Your task to perform on an android device: Clear the shopping cart on bestbuy. Search for macbook on bestbuy, select the first entry, add it to the cart, then select checkout. Image 0: 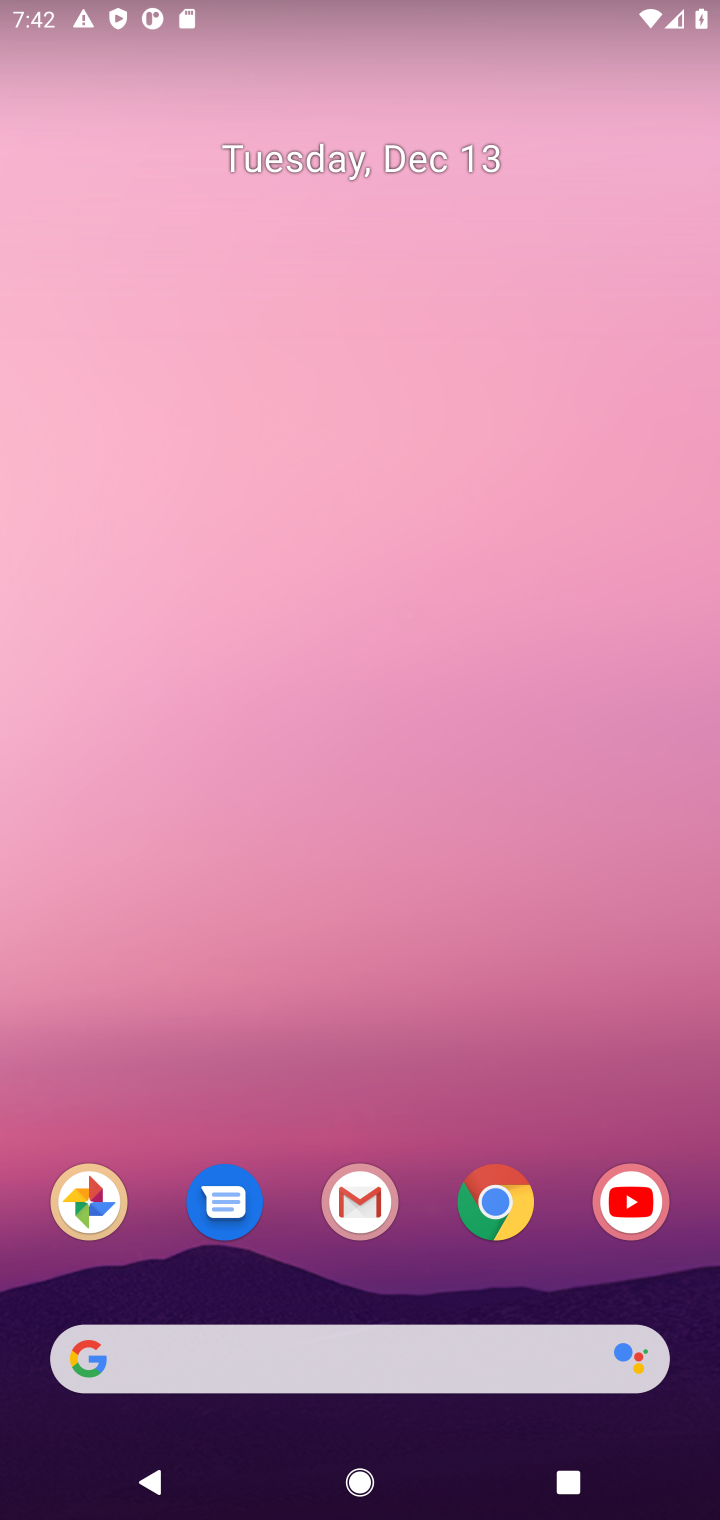
Step 0: click (502, 1227)
Your task to perform on an android device: Clear the shopping cart on bestbuy. Search for macbook on bestbuy, select the first entry, add it to the cart, then select checkout. Image 1: 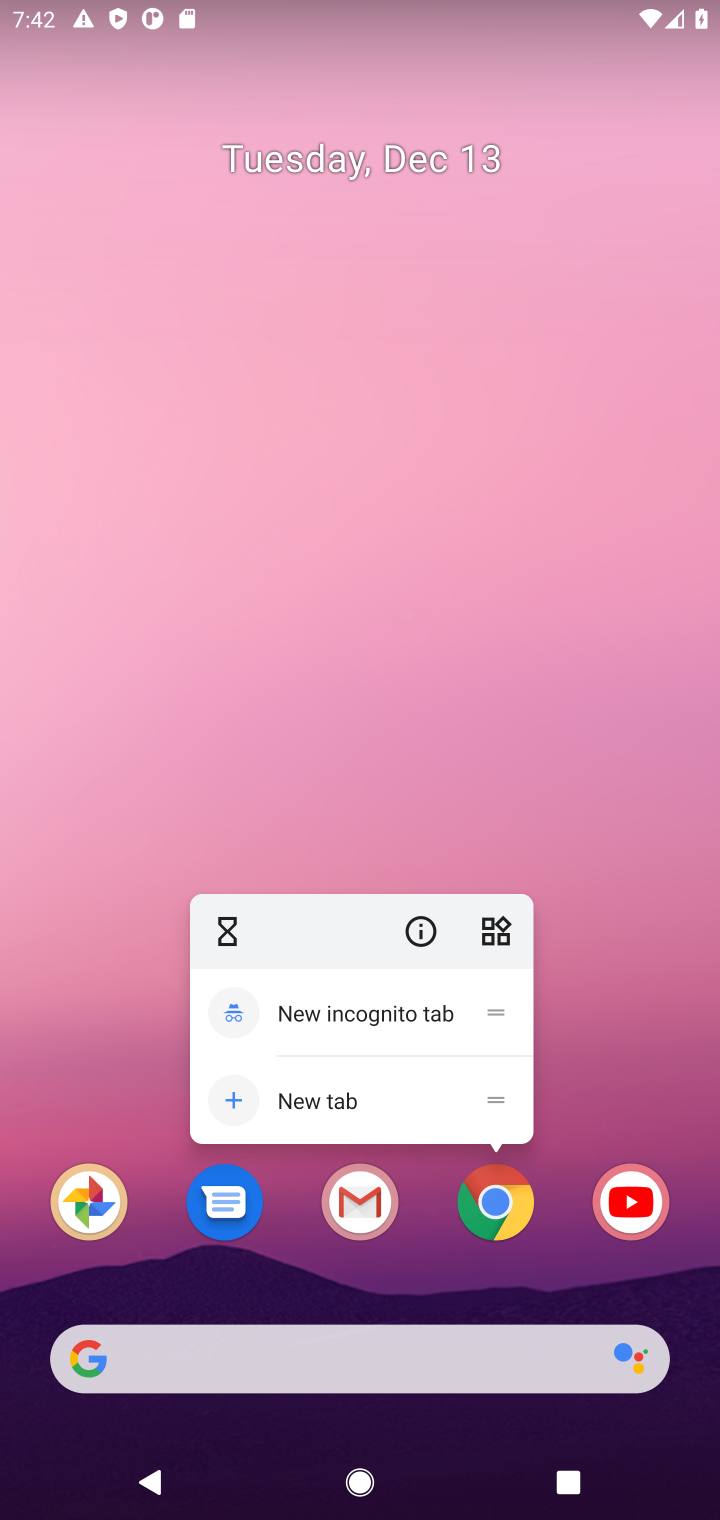
Step 1: click (503, 1213)
Your task to perform on an android device: Clear the shopping cart on bestbuy. Search for macbook on bestbuy, select the first entry, add it to the cart, then select checkout. Image 2: 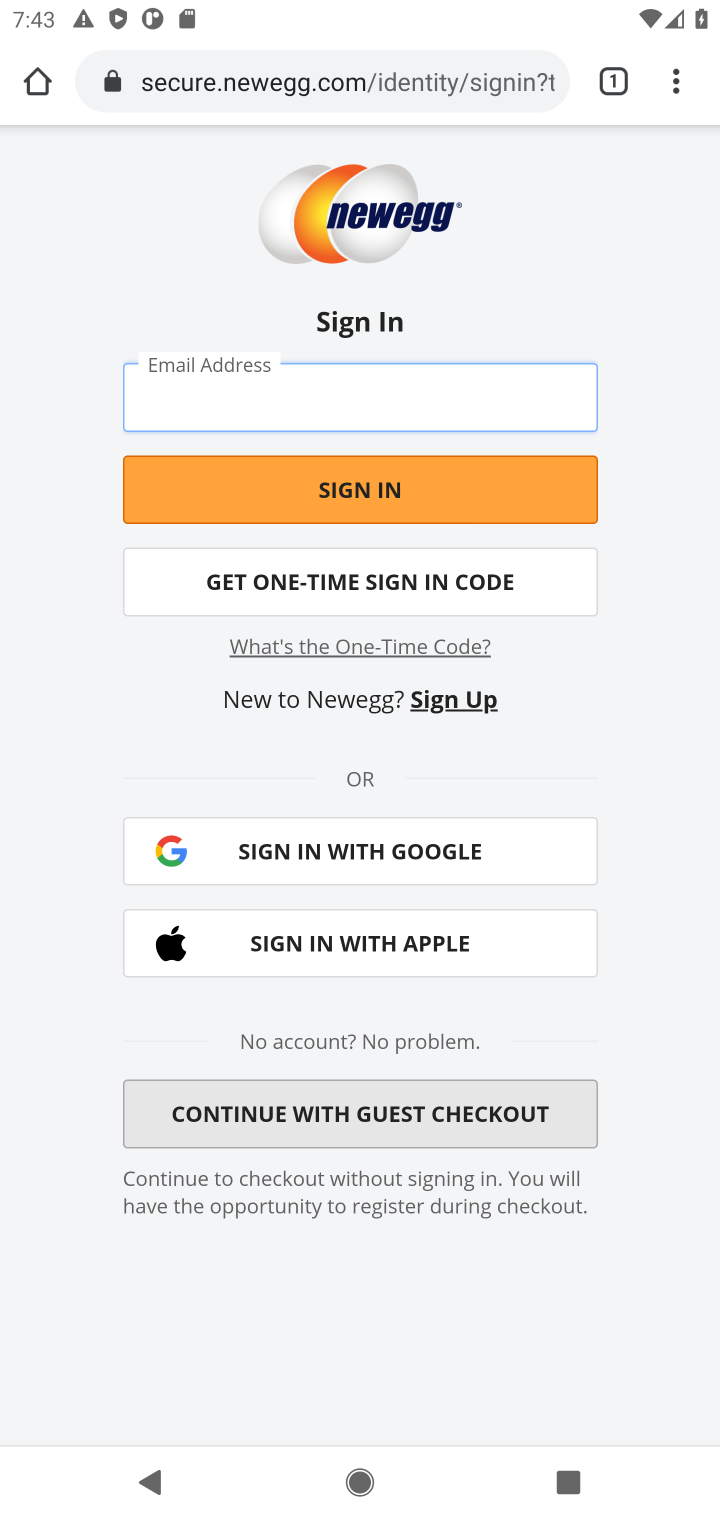
Step 2: click (275, 89)
Your task to perform on an android device: Clear the shopping cart on bestbuy. Search for macbook on bestbuy, select the first entry, add it to the cart, then select checkout. Image 3: 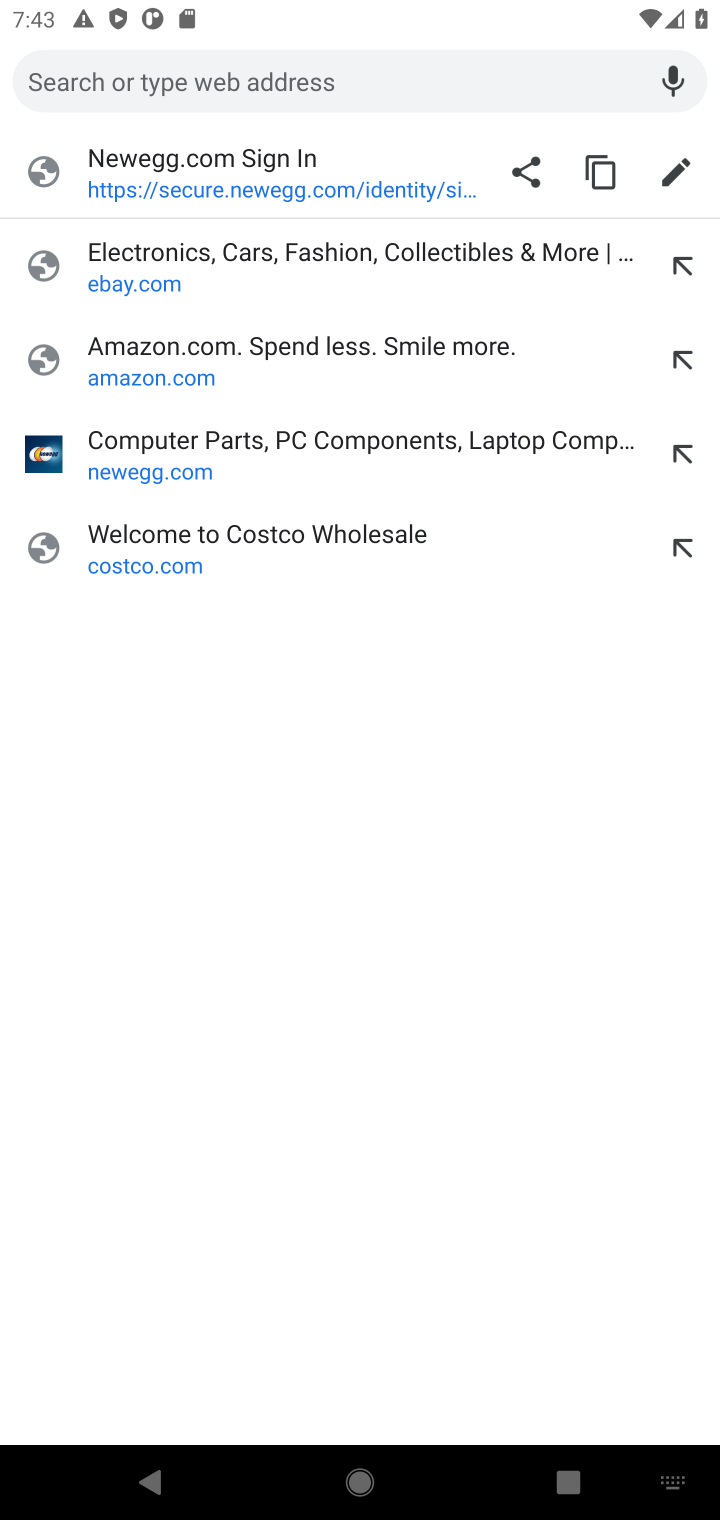
Step 3: type "bestbuy.com"
Your task to perform on an android device: Clear the shopping cart on bestbuy. Search for macbook on bestbuy, select the first entry, add it to the cart, then select checkout. Image 4: 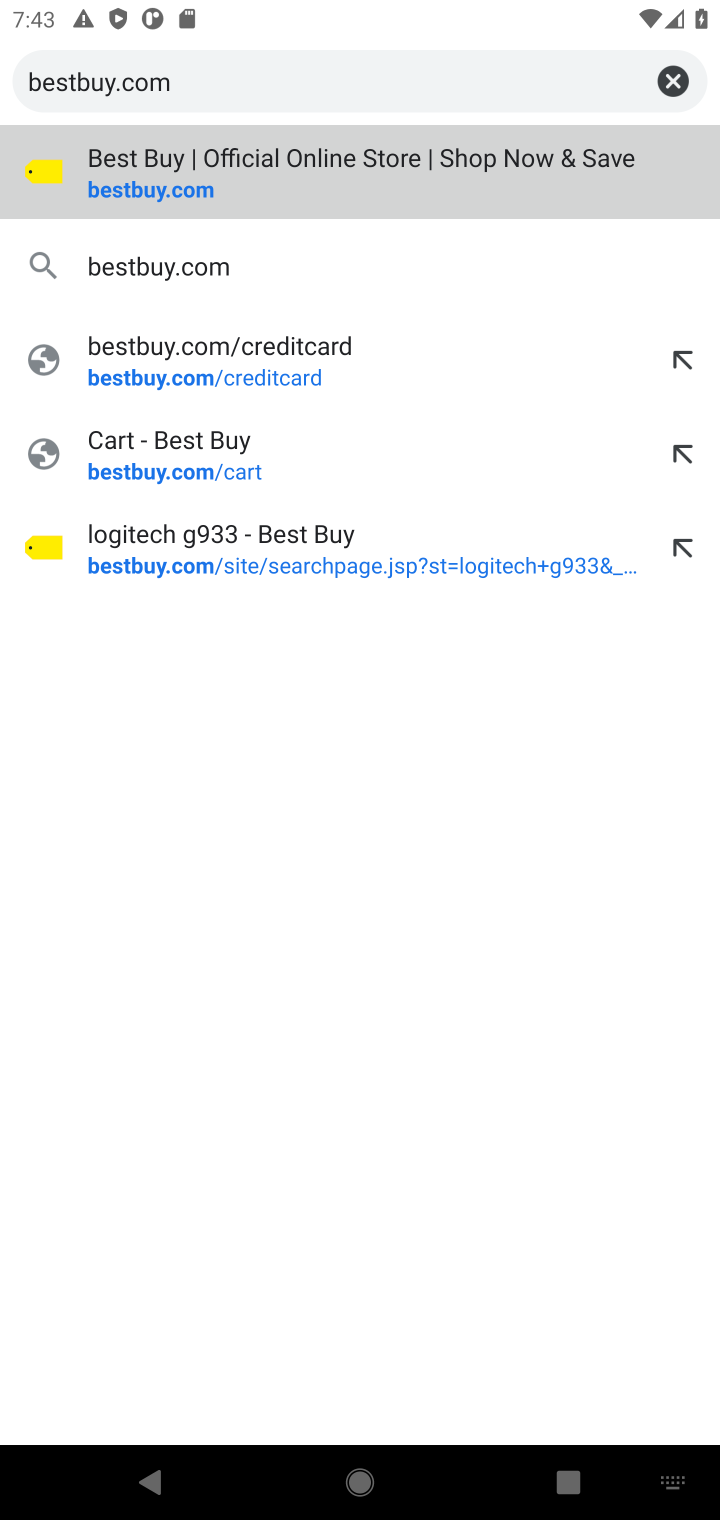
Step 4: click (106, 200)
Your task to perform on an android device: Clear the shopping cart on bestbuy. Search for macbook on bestbuy, select the first entry, add it to the cart, then select checkout. Image 5: 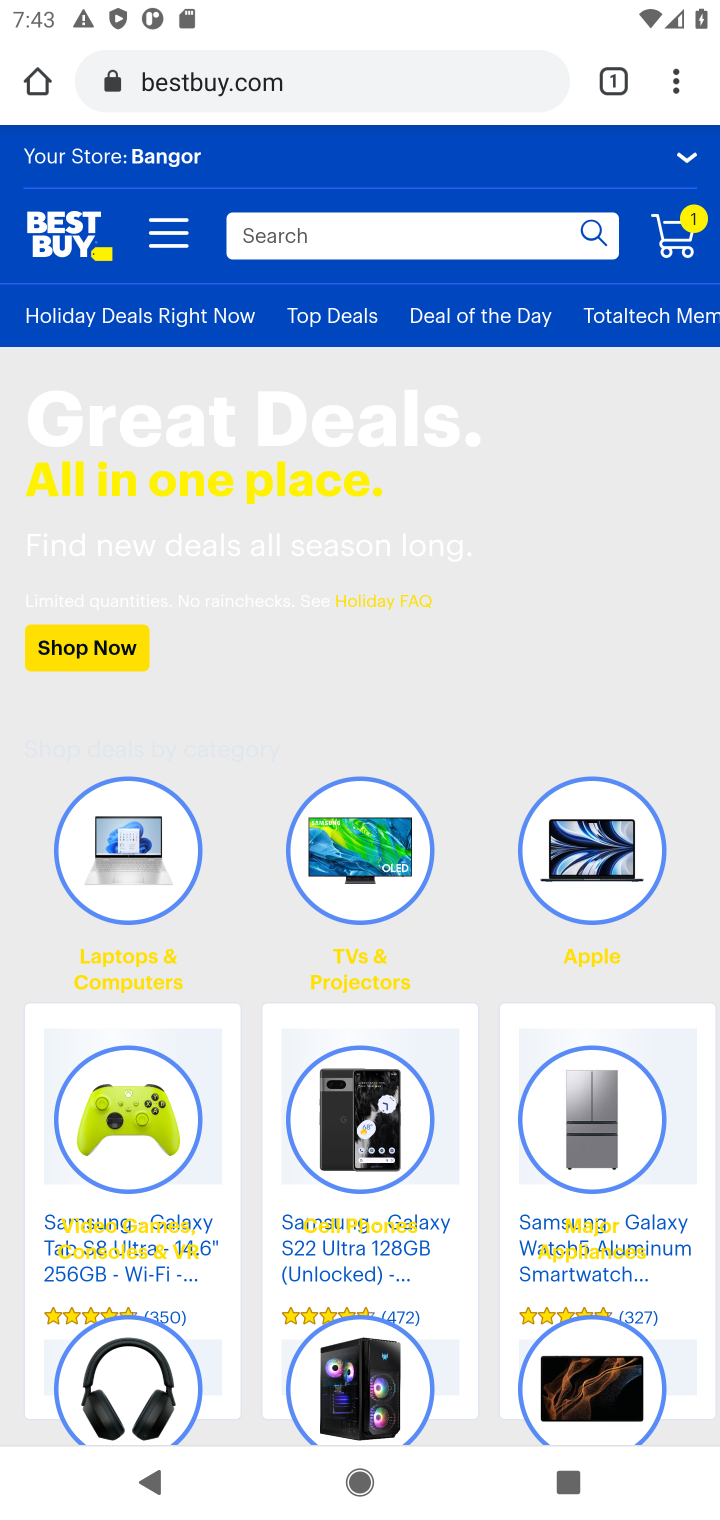
Step 5: click (673, 248)
Your task to perform on an android device: Clear the shopping cart on bestbuy. Search for macbook on bestbuy, select the first entry, add it to the cart, then select checkout. Image 6: 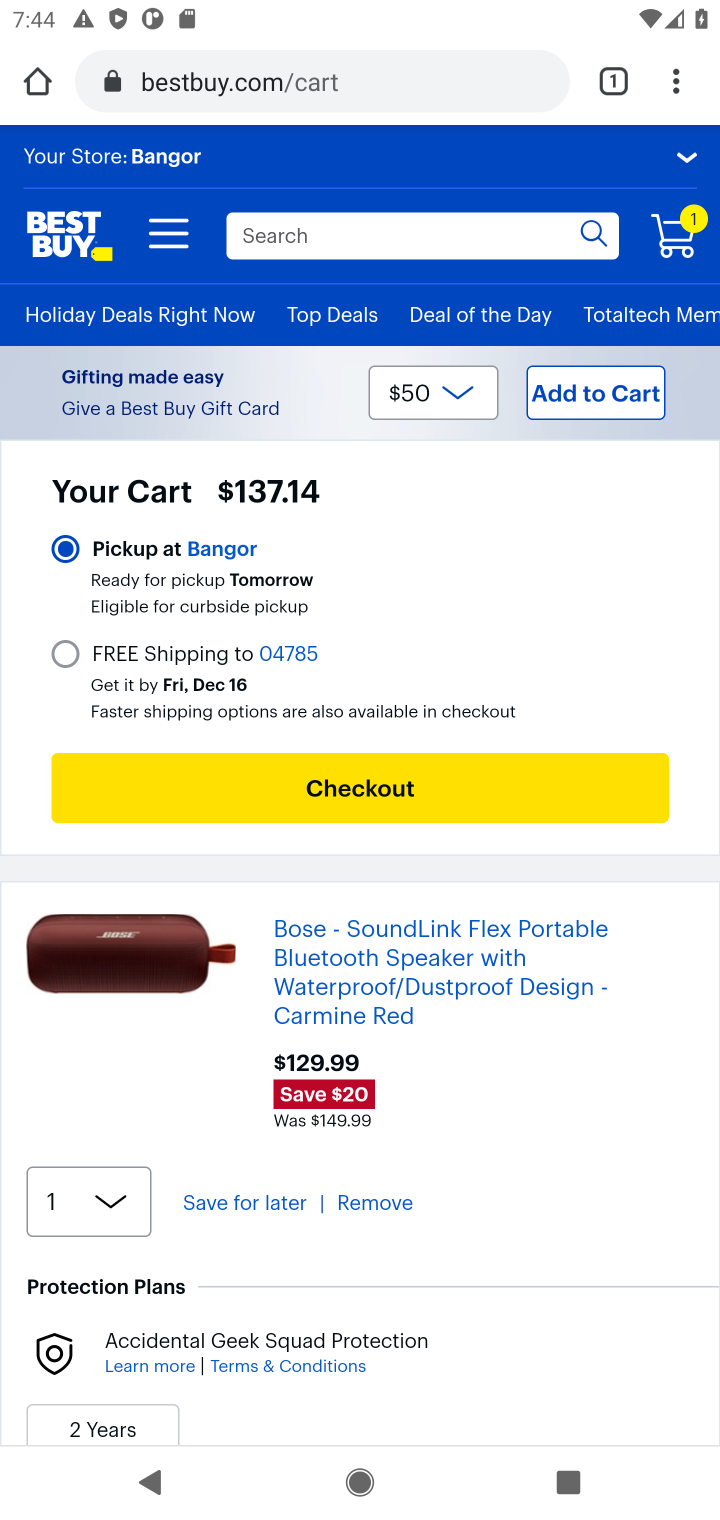
Step 6: drag from (446, 671) to (419, 454)
Your task to perform on an android device: Clear the shopping cart on bestbuy. Search for macbook on bestbuy, select the first entry, add it to the cart, then select checkout. Image 7: 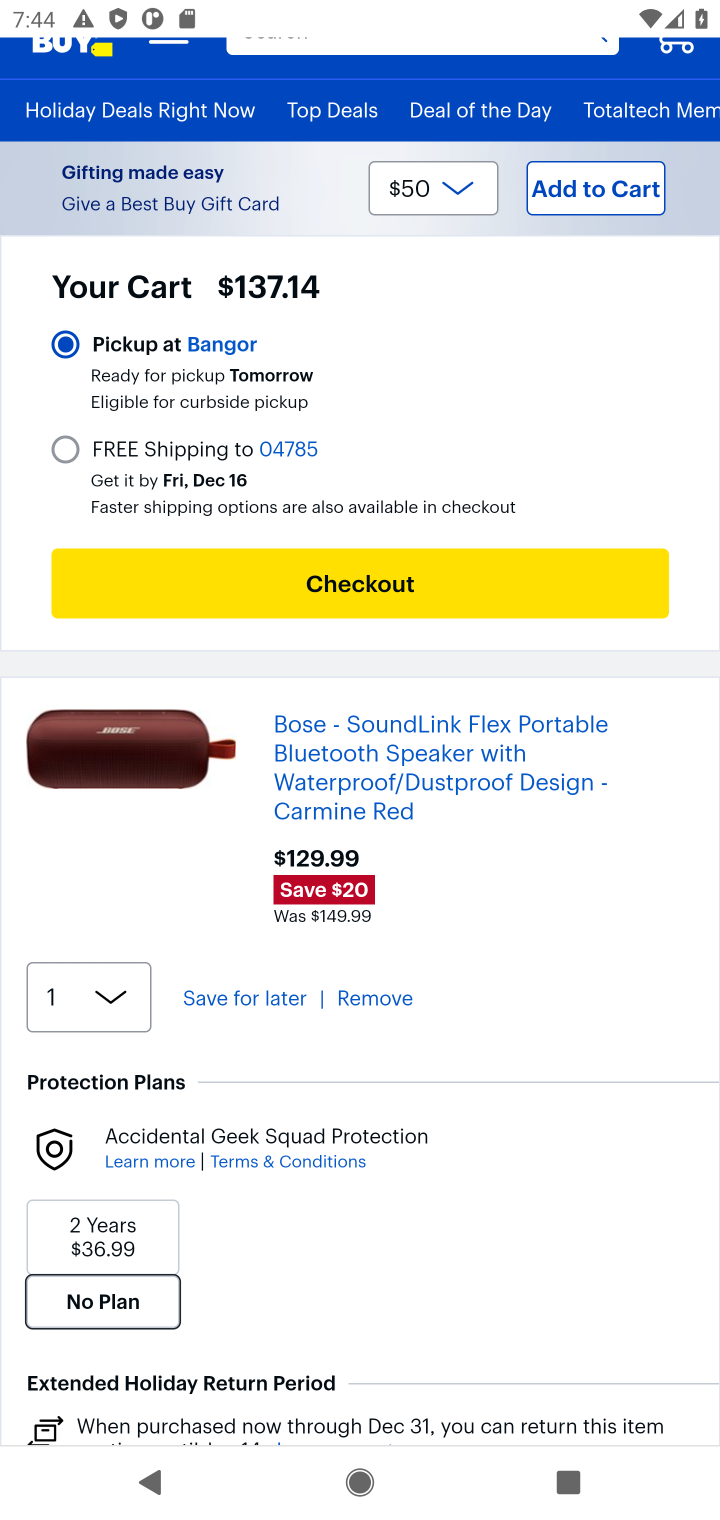
Step 7: click (368, 1009)
Your task to perform on an android device: Clear the shopping cart on bestbuy. Search for macbook on bestbuy, select the first entry, add it to the cart, then select checkout. Image 8: 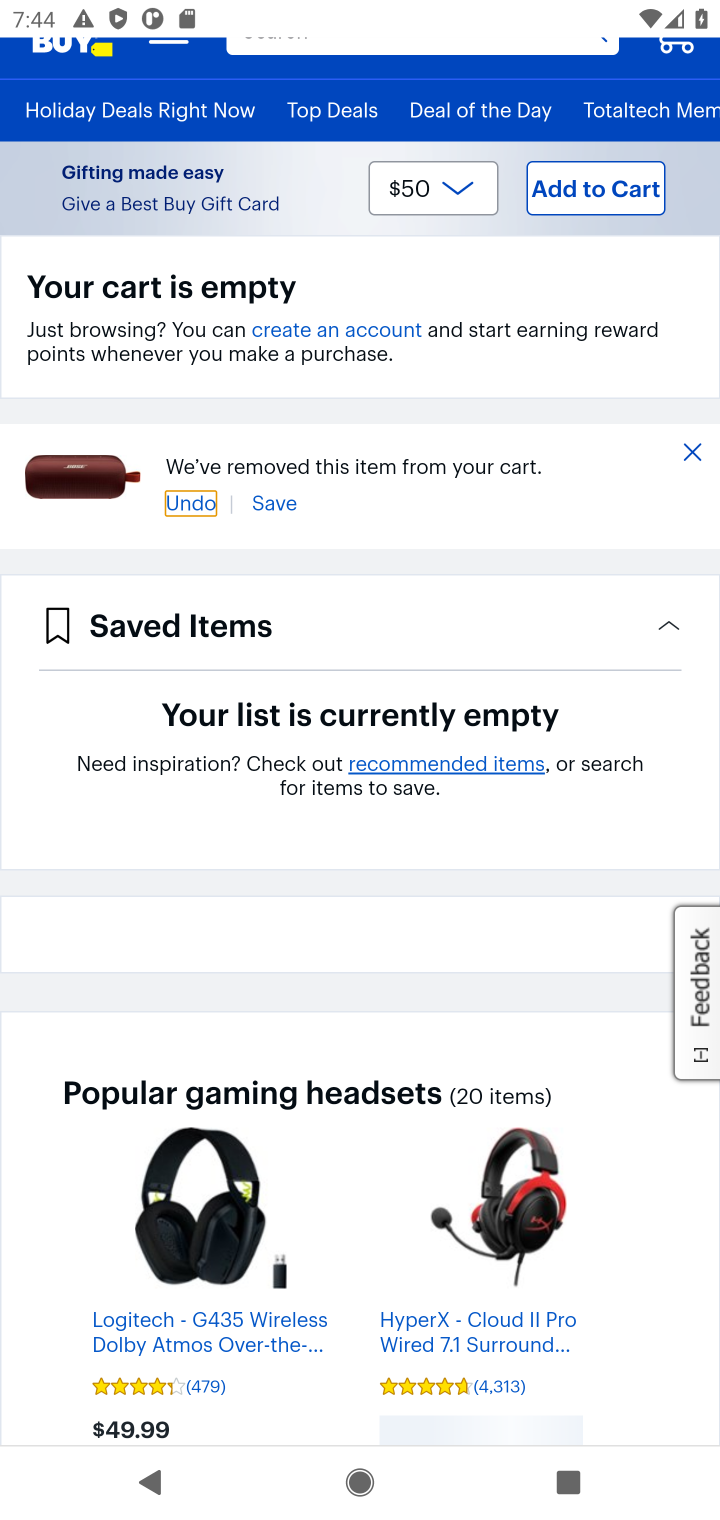
Step 8: drag from (457, 508) to (466, 1064)
Your task to perform on an android device: Clear the shopping cart on bestbuy. Search for macbook on bestbuy, select the first entry, add it to the cart, then select checkout. Image 9: 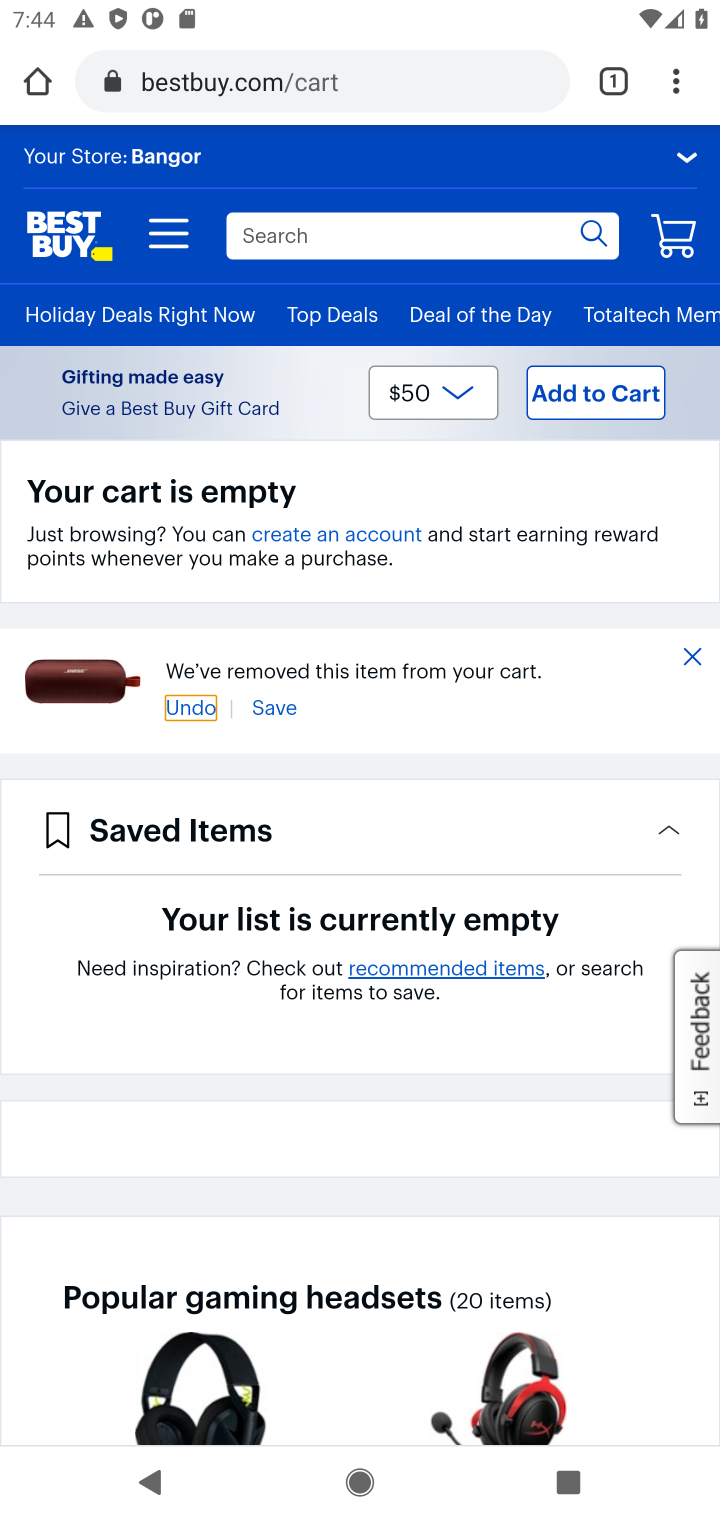
Step 9: click (316, 236)
Your task to perform on an android device: Clear the shopping cart on bestbuy. Search for macbook on bestbuy, select the first entry, add it to the cart, then select checkout. Image 10: 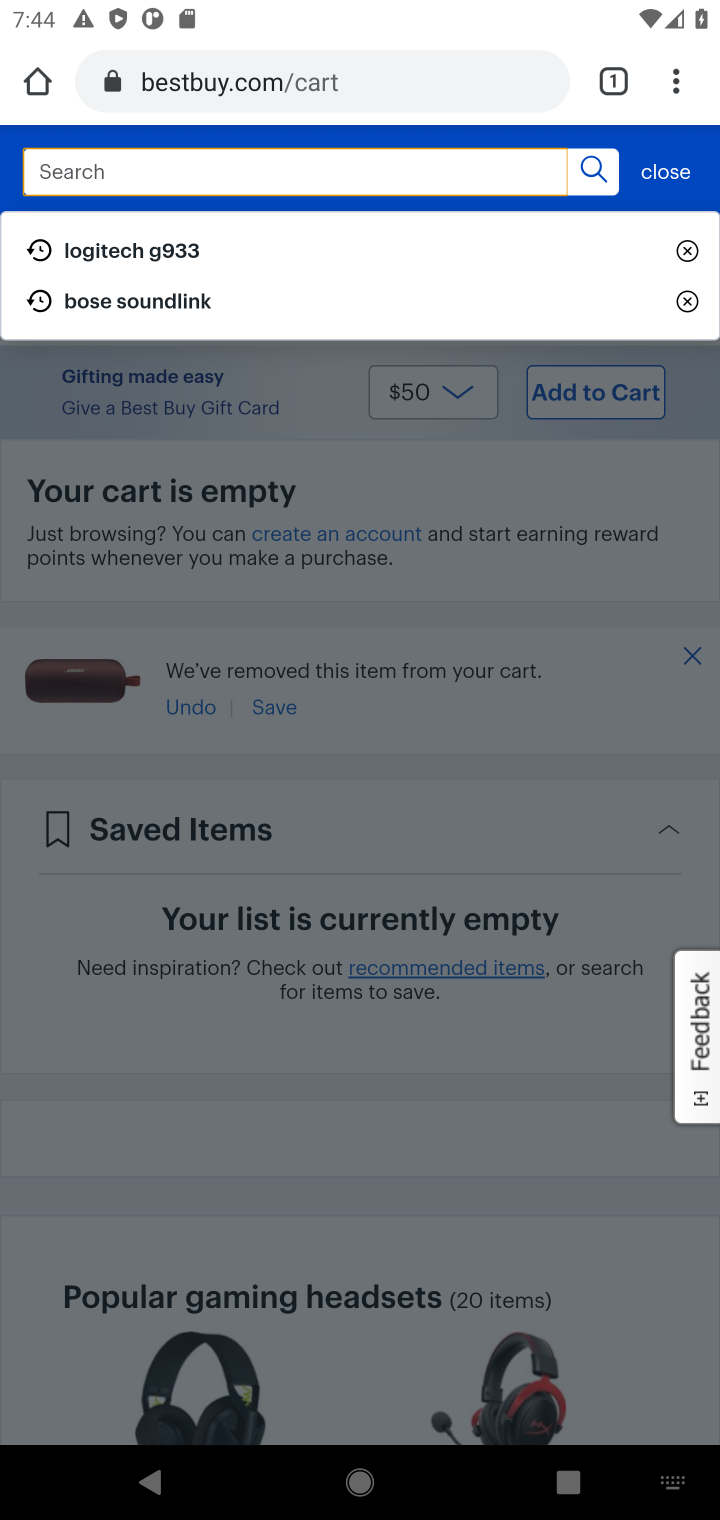
Step 10: type " macbook"
Your task to perform on an android device: Clear the shopping cart on bestbuy. Search for macbook on bestbuy, select the first entry, add it to the cart, then select checkout. Image 11: 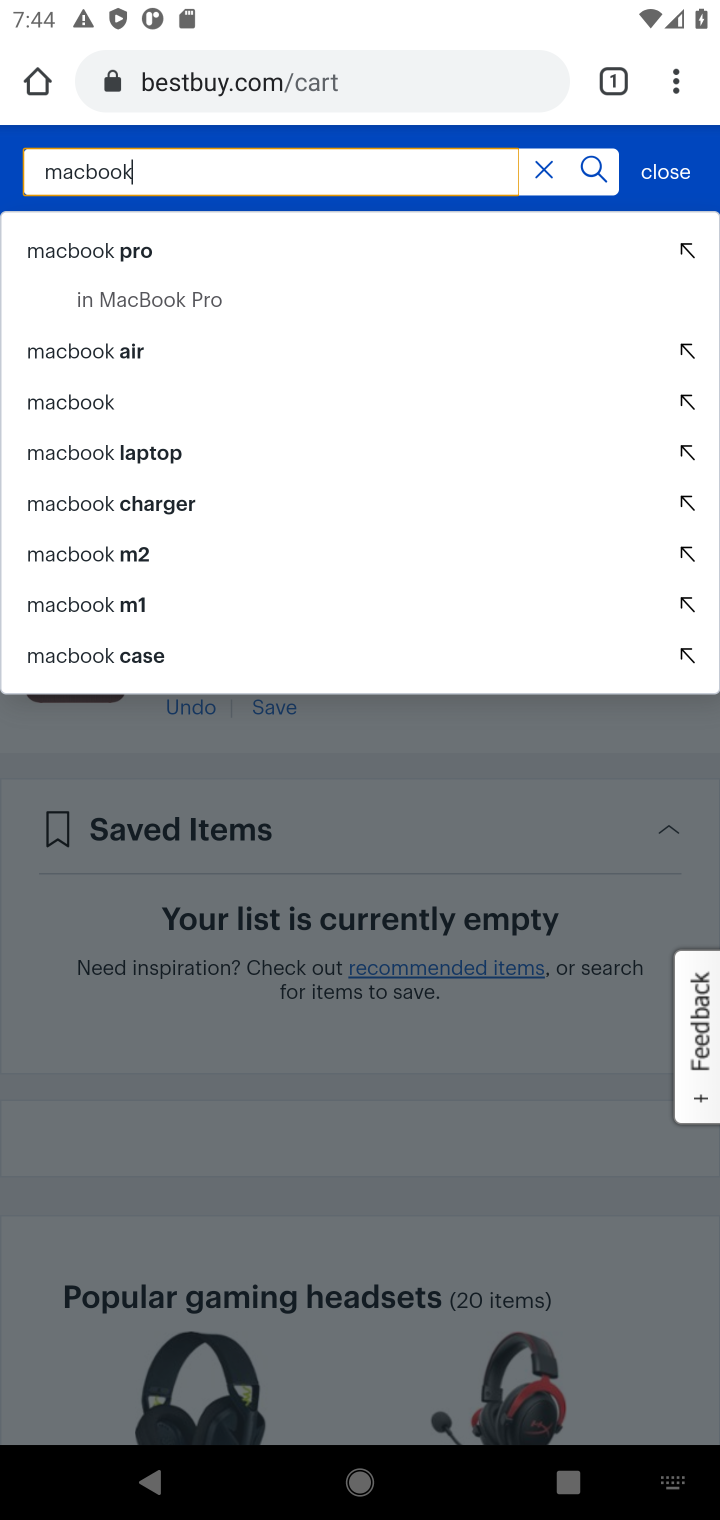
Step 11: click (108, 405)
Your task to perform on an android device: Clear the shopping cart on bestbuy. Search for macbook on bestbuy, select the first entry, add it to the cart, then select checkout. Image 12: 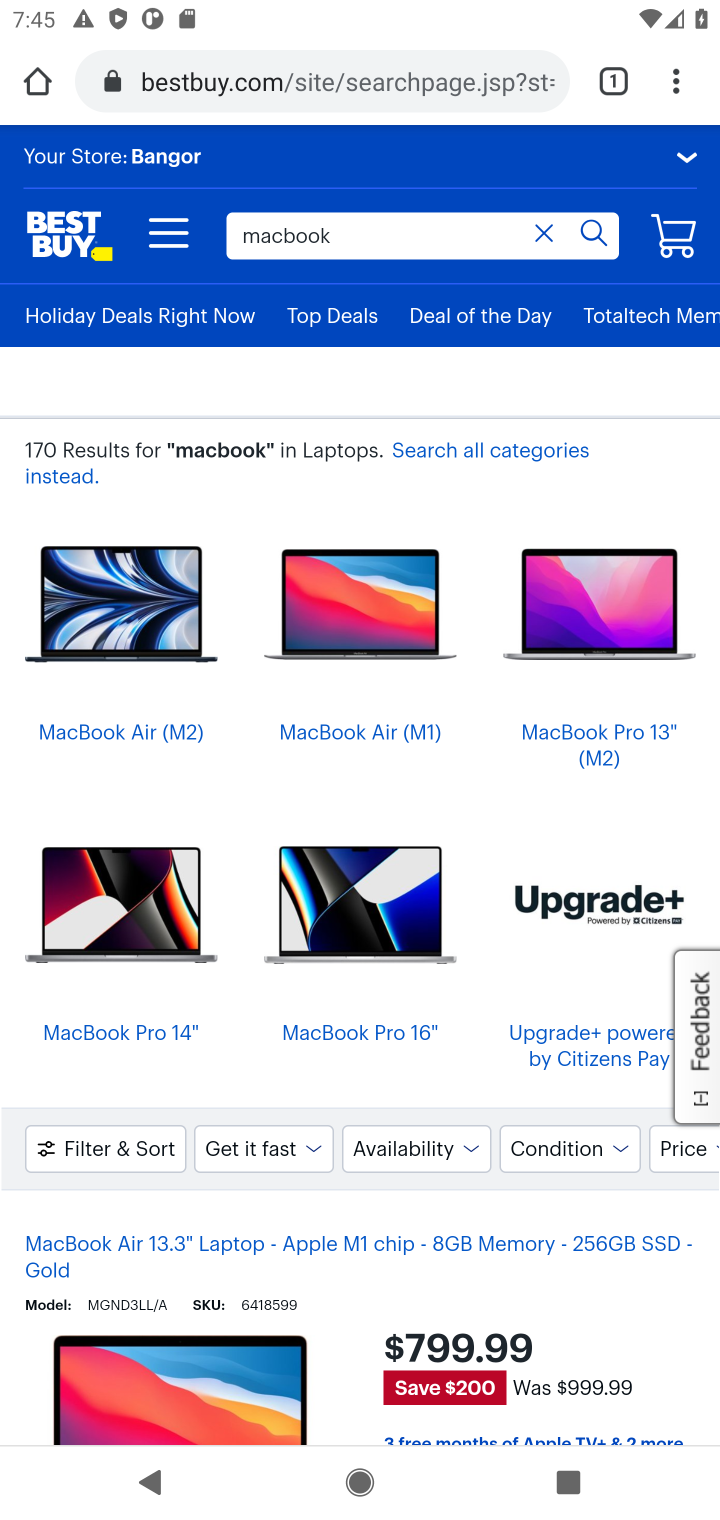
Step 12: drag from (224, 947) to (208, 494)
Your task to perform on an android device: Clear the shopping cart on bestbuy. Search for macbook on bestbuy, select the first entry, add it to the cart, then select checkout. Image 13: 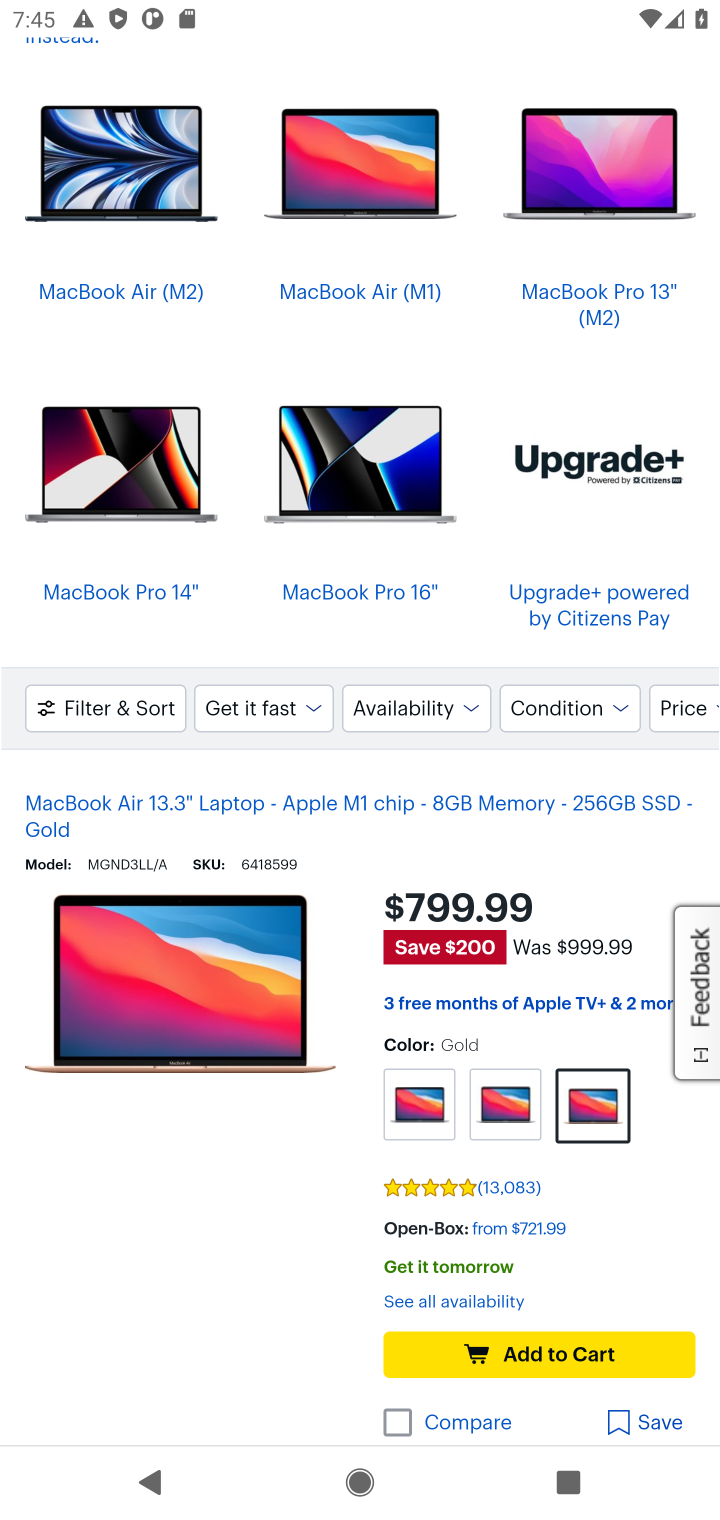
Step 13: click (506, 1361)
Your task to perform on an android device: Clear the shopping cart on bestbuy. Search for macbook on bestbuy, select the first entry, add it to the cart, then select checkout. Image 14: 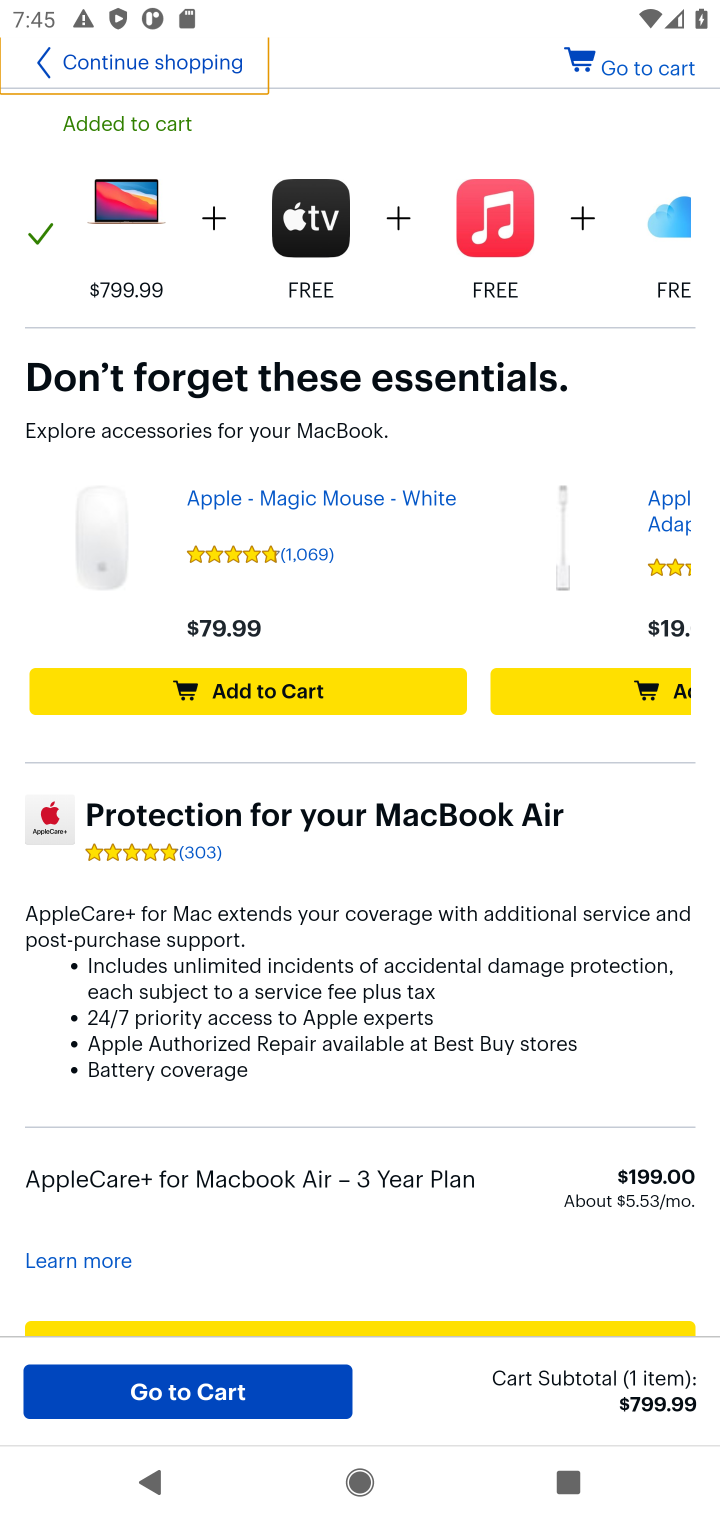
Step 14: click (646, 76)
Your task to perform on an android device: Clear the shopping cart on bestbuy. Search for macbook on bestbuy, select the first entry, add it to the cart, then select checkout. Image 15: 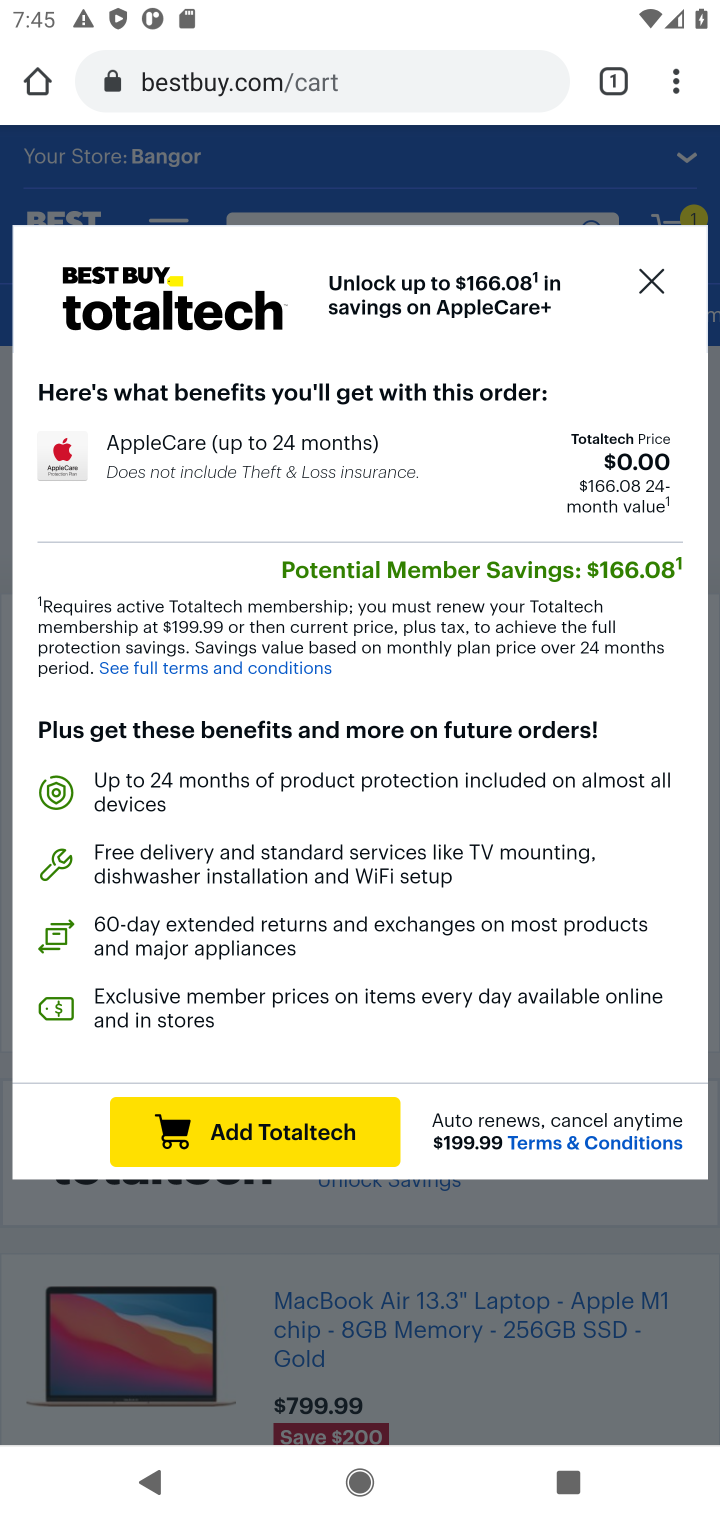
Step 15: click (644, 281)
Your task to perform on an android device: Clear the shopping cart on bestbuy. Search for macbook on bestbuy, select the first entry, add it to the cart, then select checkout. Image 16: 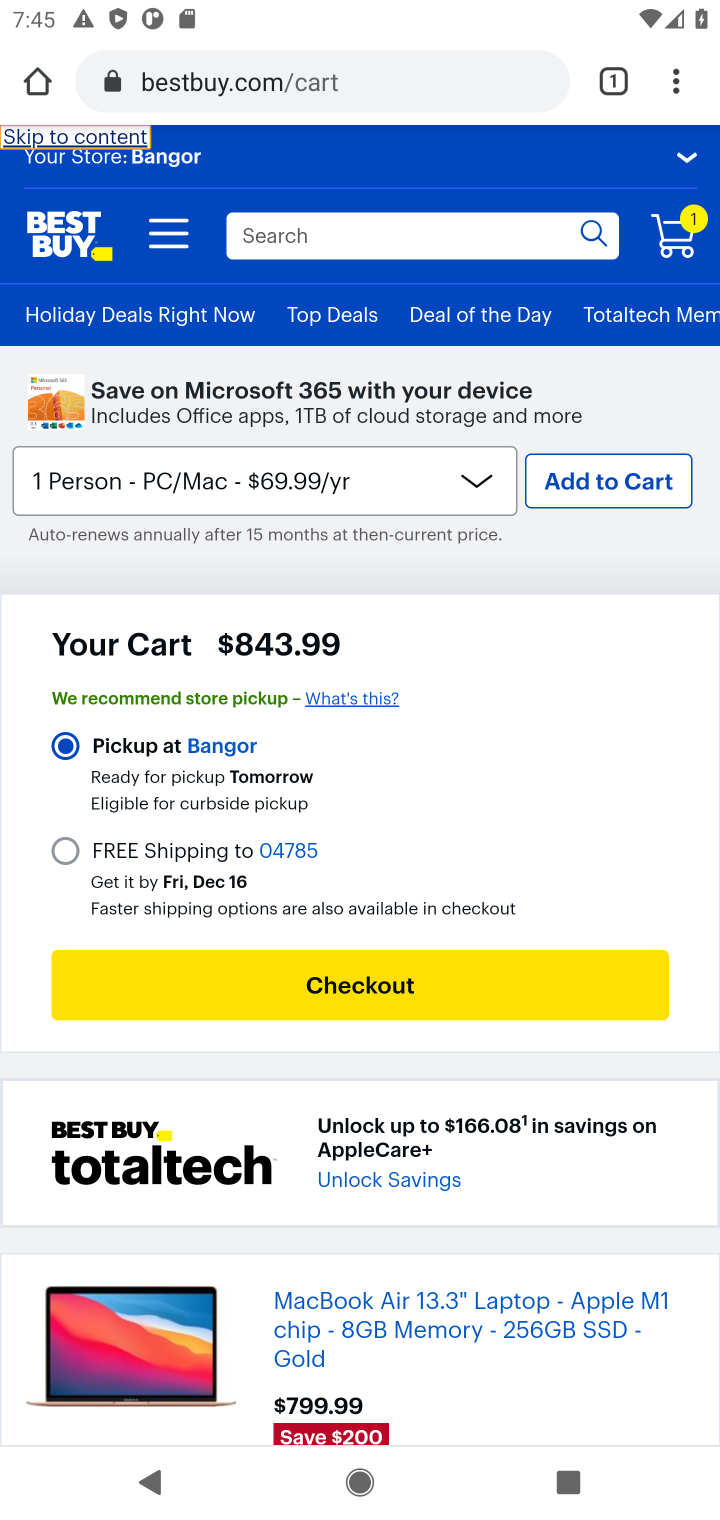
Step 16: click (328, 998)
Your task to perform on an android device: Clear the shopping cart on bestbuy. Search for macbook on bestbuy, select the first entry, add it to the cart, then select checkout. Image 17: 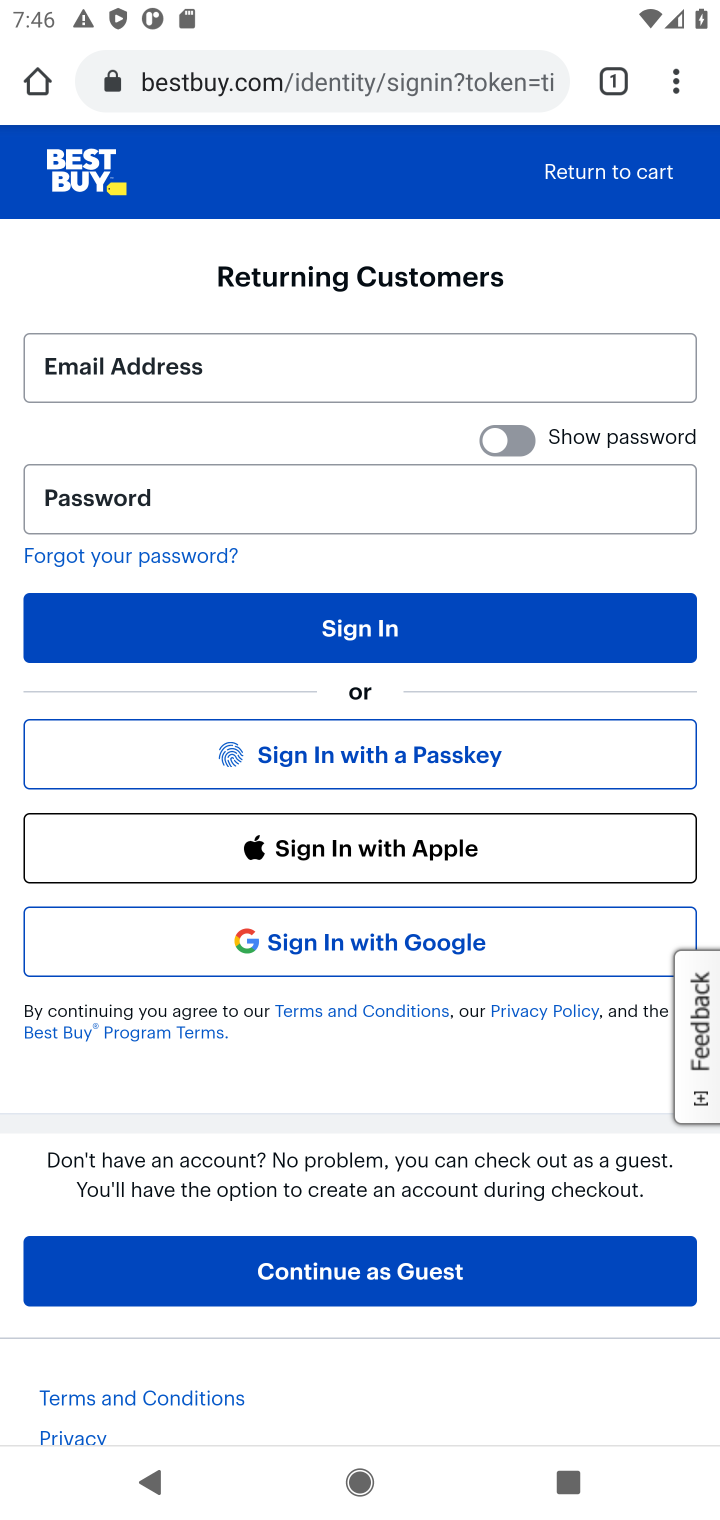
Step 17: task complete